Your task to perform on an android device: change text size in settings app Image 0: 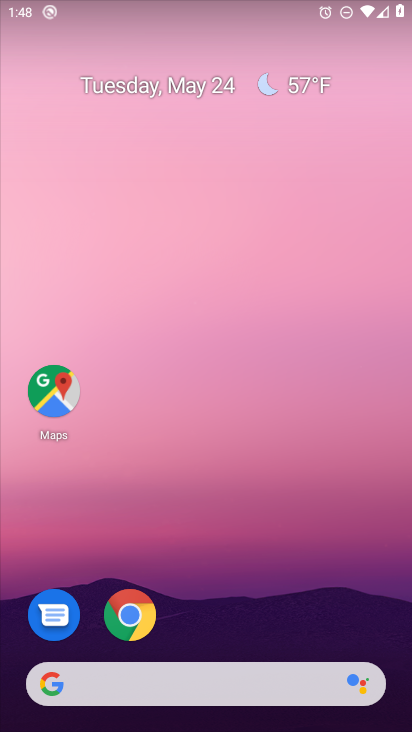
Step 0: drag from (197, 663) to (167, 139)
Your task to perform on an android device: change text size in settings app Image 1: 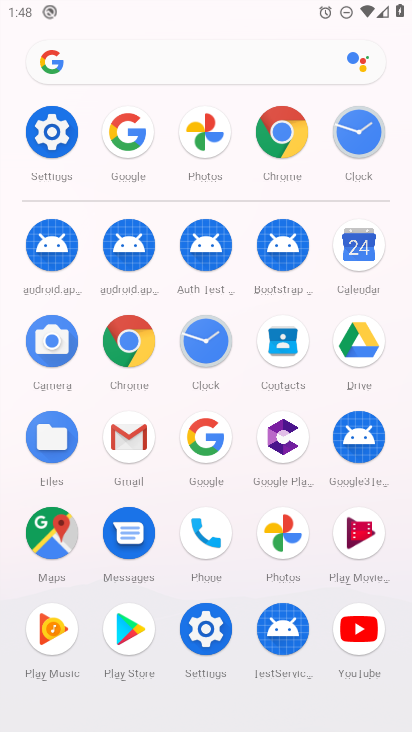
Step 1: click (63, 139)
Your task to perform on an android device: change text size in settings app Image 2: 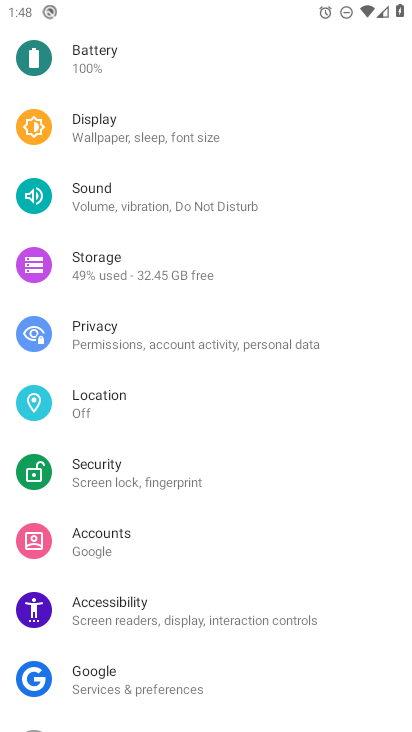
Step 2: drag from (197, 666) to (218, 216)
Your task to perform on an android device: change text size in settings app Image 3: 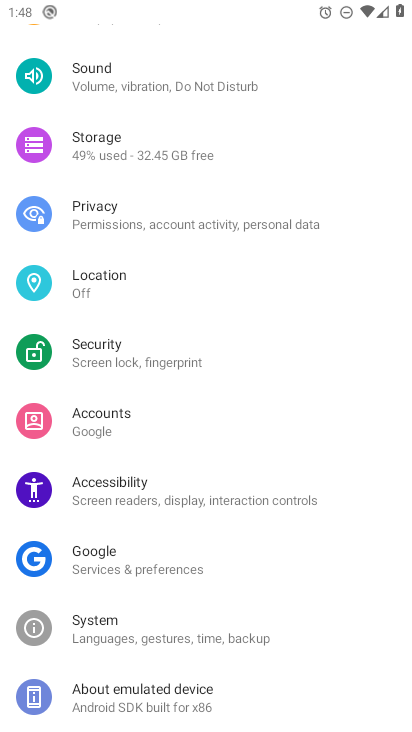
Step 3: click (99, 484)
Your task to perform on an android device: change text size in settings app Image 4: 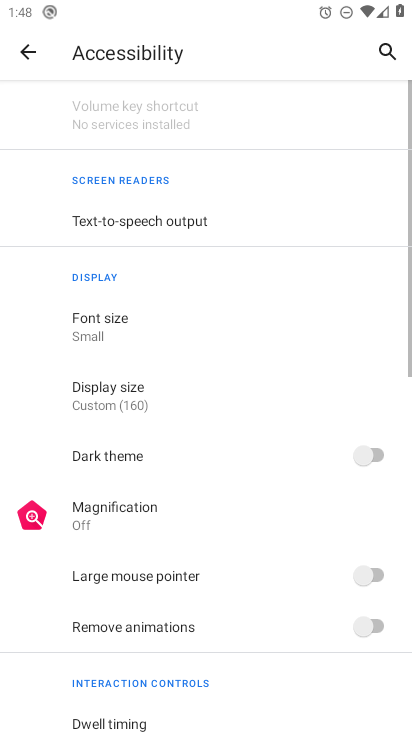
Step 4: click (131, 325)
Your task to perform on an android device: change text size in settings app Image 5: 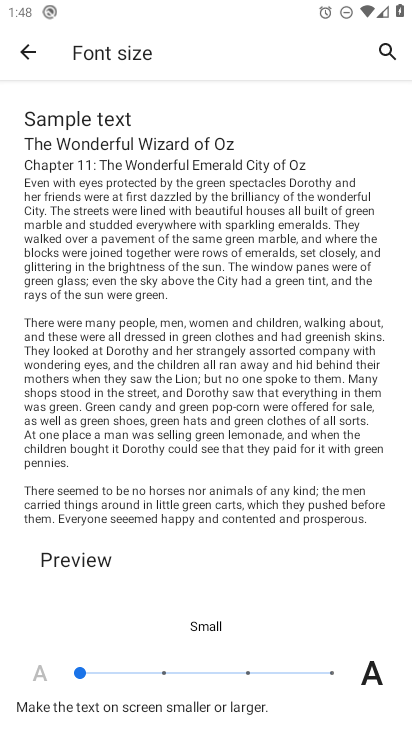
Step 5: click (161, 668)
Your task to perform on an android device: change text size in settings app Image 6: 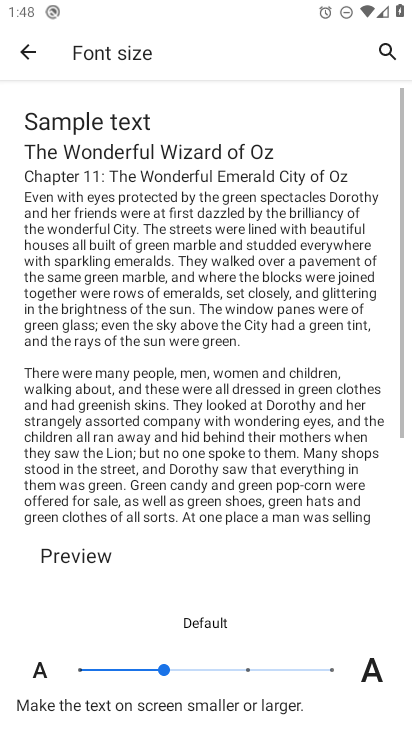
Step 6: task complete